Your task to perform on an android device: turn on javascript in the chrome app Image 0: 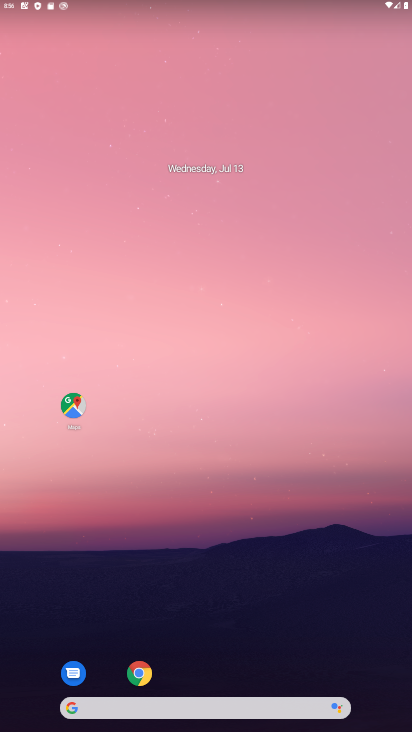
Step 0: click (147, 677)
Your task to perform on an android device: turn on javascript in the chrome app Image 1: 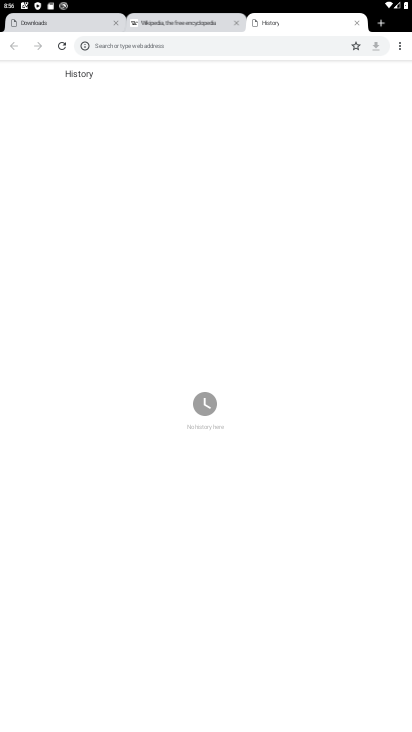
Step 1: click (406, 45)
Your task to perform on an android device: turn on javascript in the chrome app Image 2: 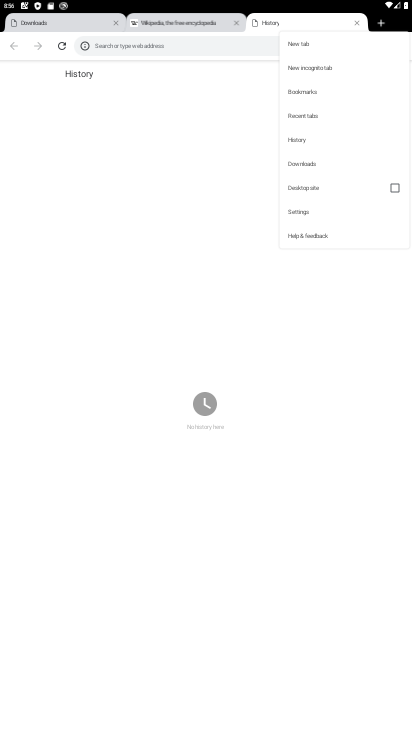
Step 2: click (313, 209)
Your task to perform on an android device: turn on javascript in the chrome app Image 3: 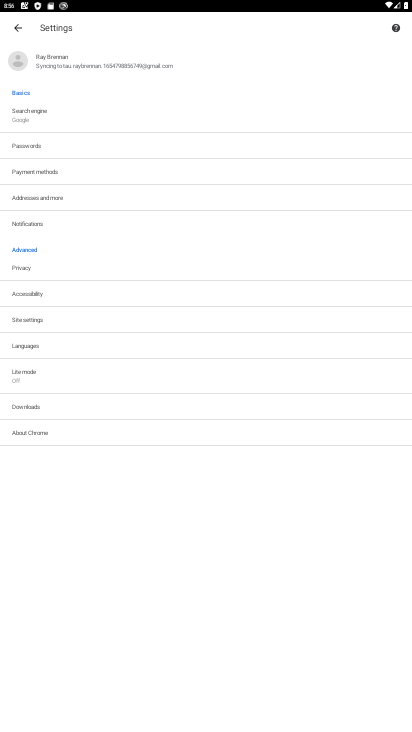
Step 3: click (46, 324)
Your task to perform on an android device: turn on javascript in the chrome app Image 4: 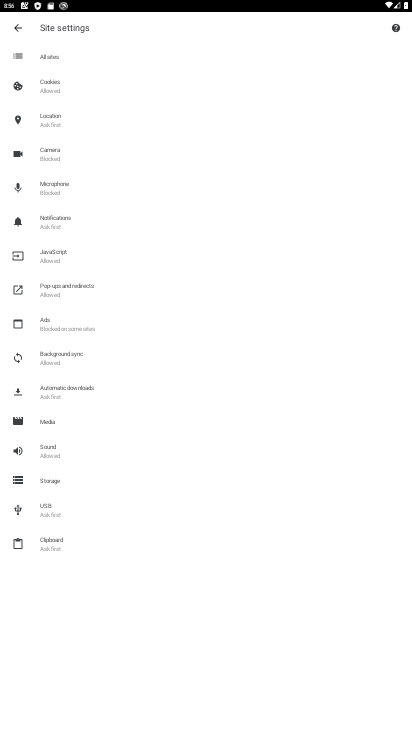
Step 4: click (59, 251)
Your task to perform on an android device: turn on javascript in the chrome app Image 5: 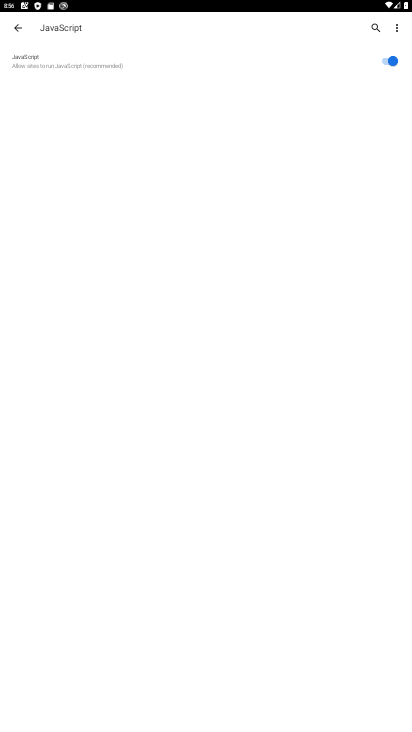
Step 5: task complete